Your task to perform on an android device: all mails in gmail Image 0: 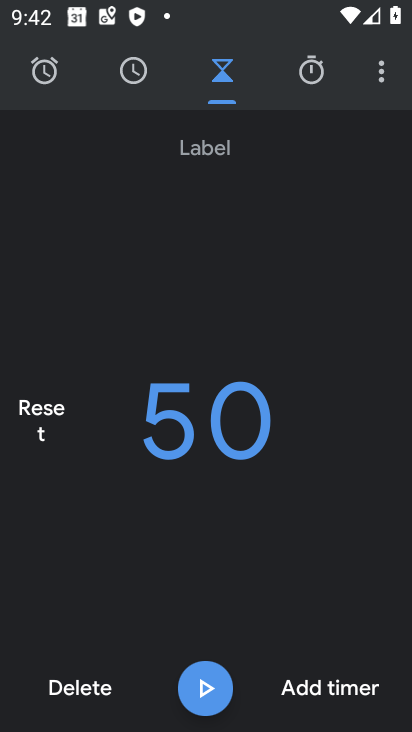
Step 0: press home button
Your task to perform on an android device: all mails in gmail Image 1: 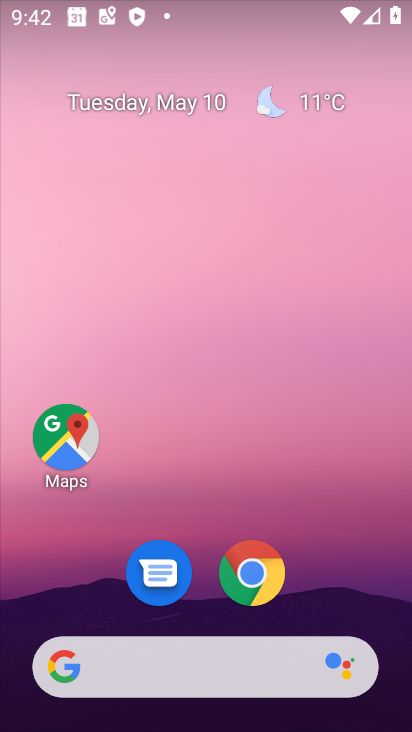
Step 1: drag from (373, 613) to (360, 42)
Your task to perform on an android device: all mails in gmail Image 2: 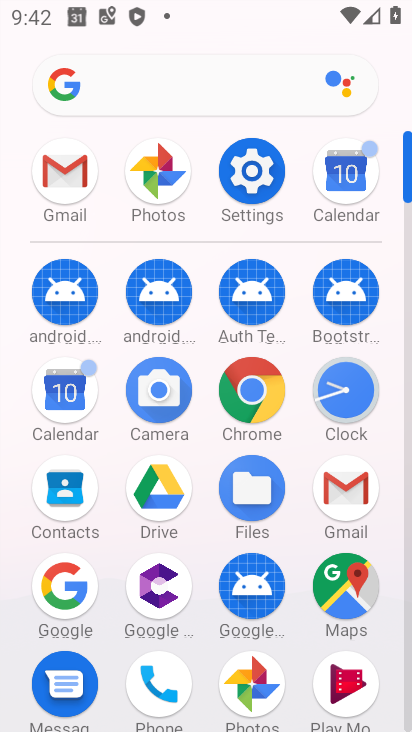
Step 2: click (52, 187)
Your task to perform on an android device: all mails in gmail Image 3: 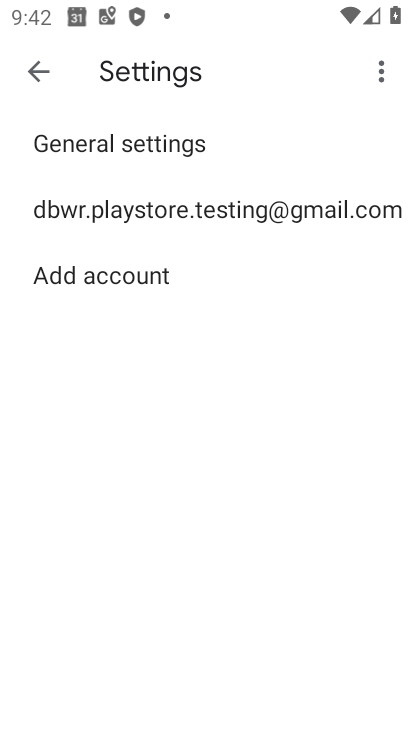
Step 3: click (27, 77)
Your task to perform on an android device: all mails in gmail Image 4: 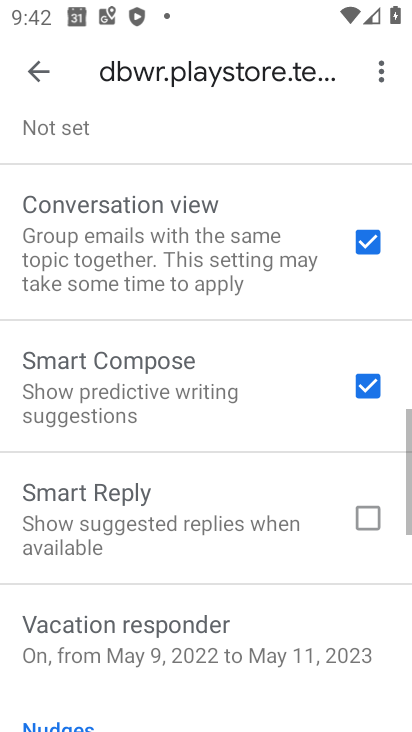
Step 4: click (27, 76)
Your task to perform on an android device: all mails in gmail Image 5: 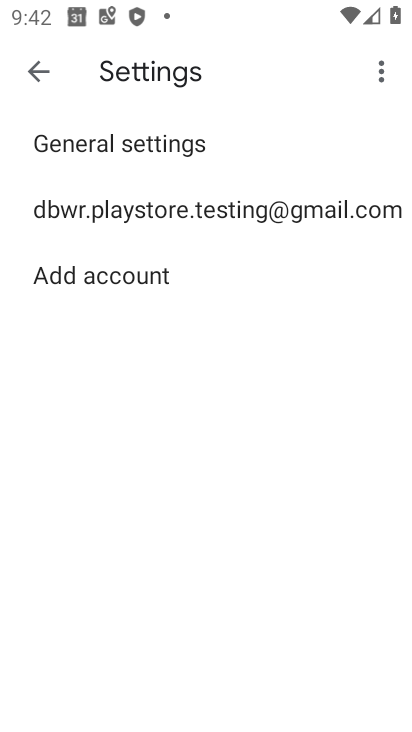
Step 5: click (27, 76)
Your task to perform on an android device: all mails in gmail Image 6: 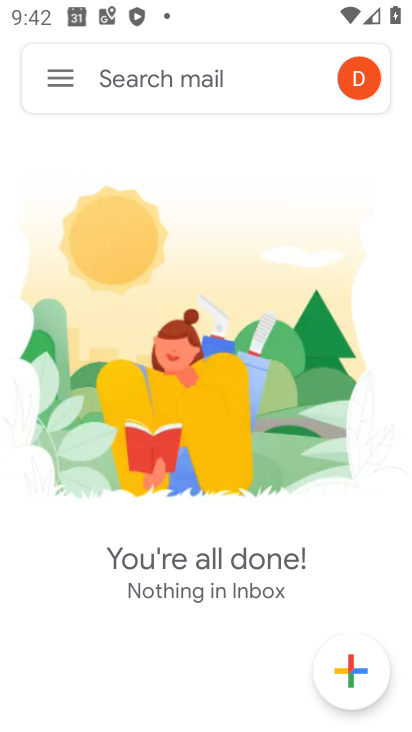
Step 6: click (56, 75)
Your task to perform on an android device: all mails in gmail Image 7: 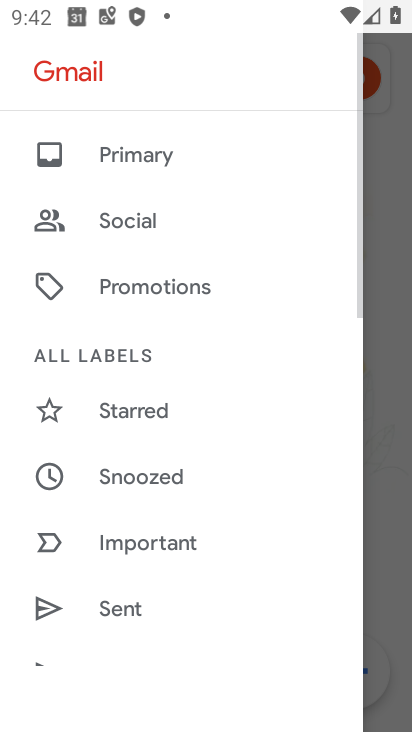
Step 7: drag from (189, 448) to (180, 196)
Your task to perform on an android device: all mails in gmail Image 8: 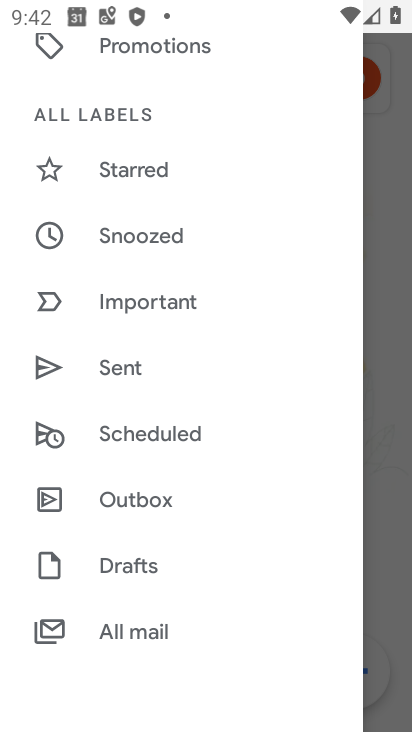
Step 8: click (145, 643)
Your task to perform on an android device: all mails in gmail Image 9: 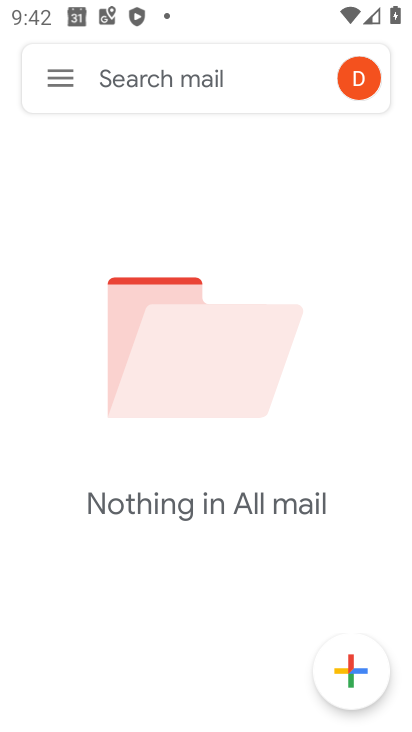
Step 9: task complete